Your task to perform on an android device: Open Youtube and go to the subscriptions tab Image 0: 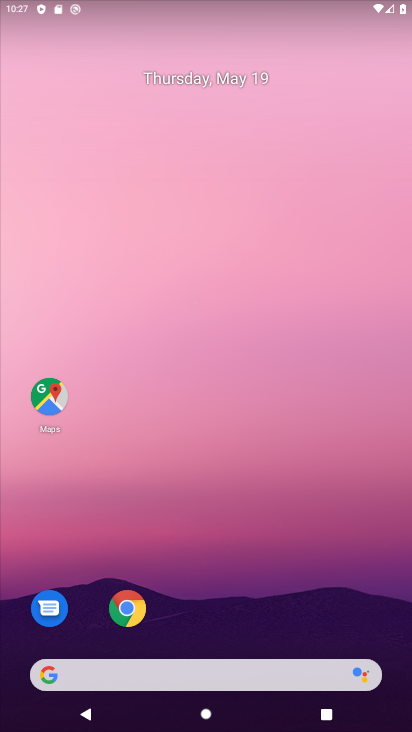
Step 0: drag from (402, 708) to (365, 285)
Your task to perform on an android device: Open Youtube and go to the subscriptions tab Image 1: 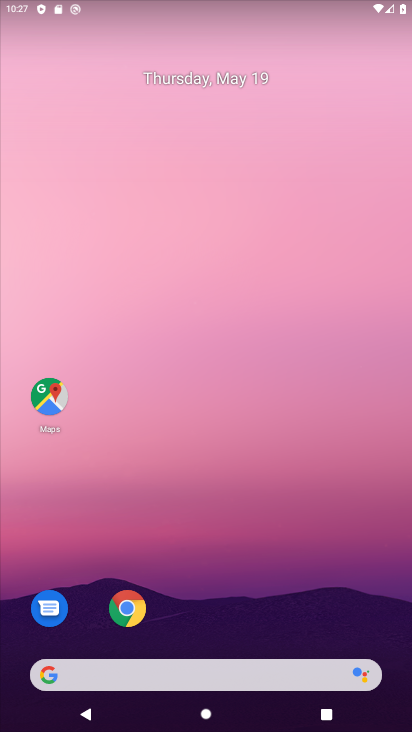
Step 1: drag from (391, 670) to (356, 318)
Your task to perform on an android device: Open Youtube and go to the subscriptions tab Image 2: 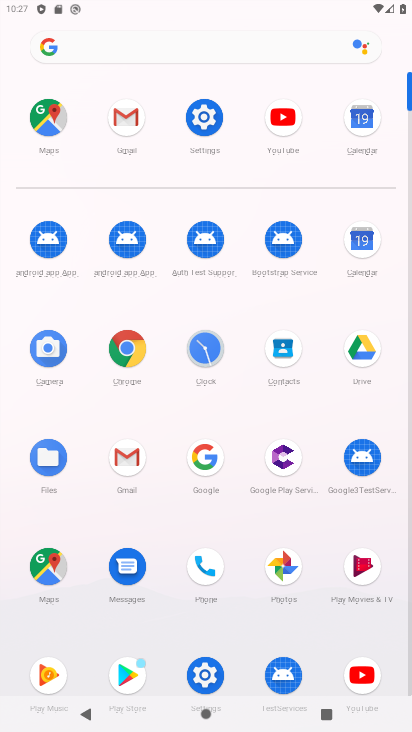
Step 2: click (362, 673)
Your task to perform on an android device: Open Youtube and go to the subscriptions tab Image 3: 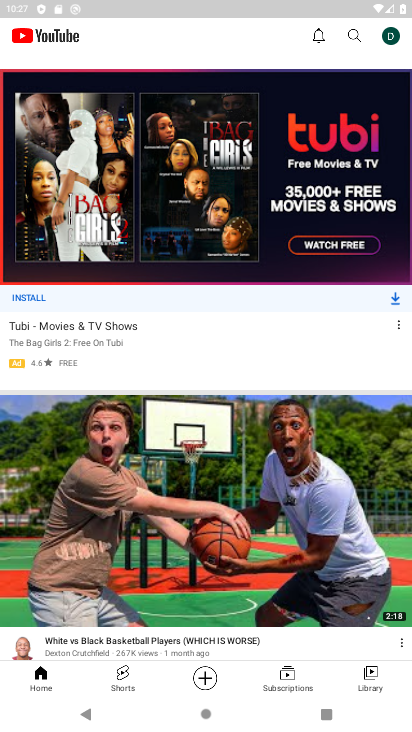
Step 3: click (283, 676)
Your task to perform on an android device: Open Youtube and go to the subscriptions tab Image 4: 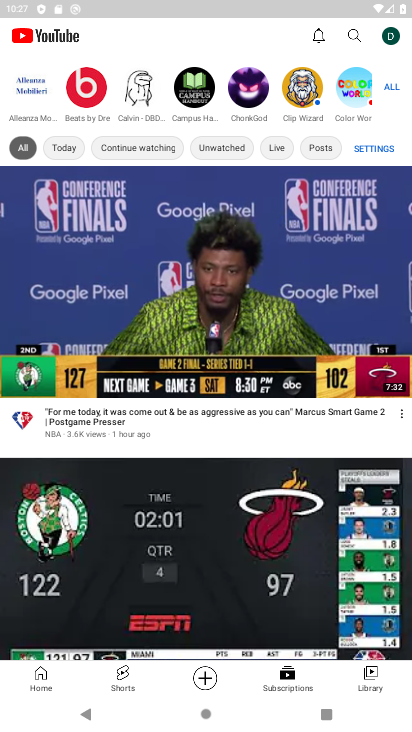
Step 4: task complete